Your task to perform on an android device: Search for pizza restaurants on Maps Image 0: 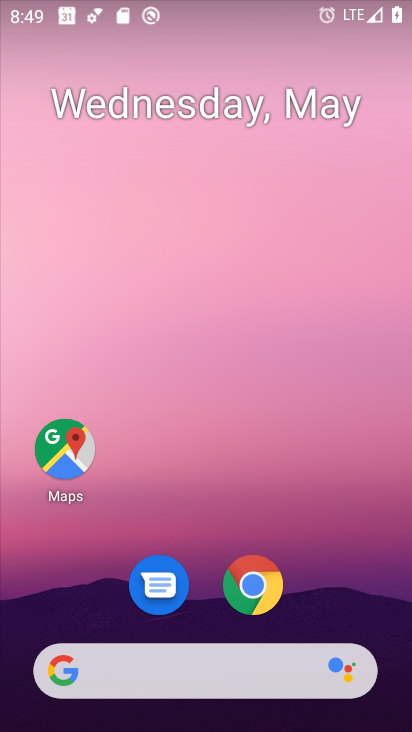
Step 0: click (66, 454)
Your task to perform on an android device: Search for pizza restaurants on Maps Image 1: 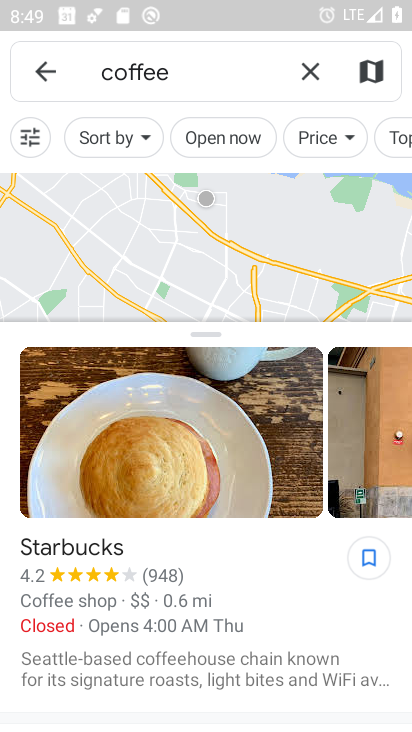
Step 1: click (307, 68)
Your task to perform on an android device: Search for pizza restaurants on Maps Image 2: 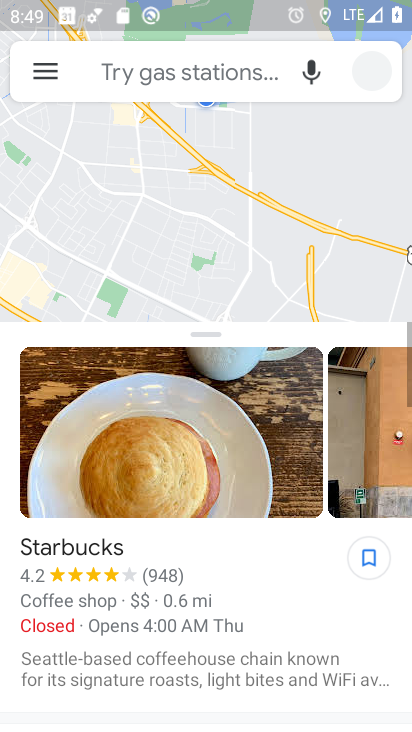
Step 2: click (198, 67)
Your task to perform on an android device: Search for pizza restaurants on Maps Image 3: 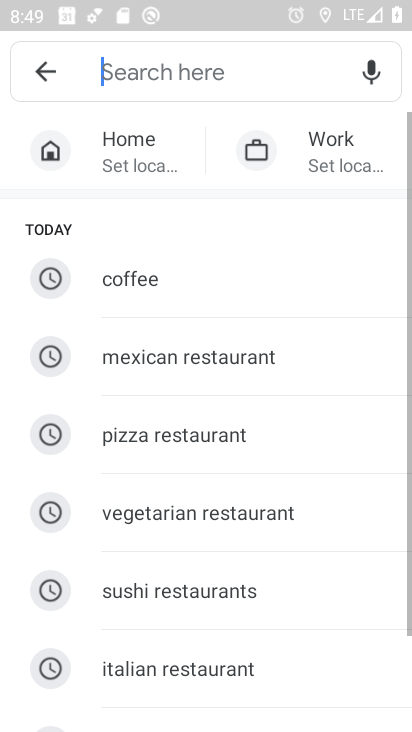
Step 3: click (198, 74)
Your task to perform on an android device: Search for pizza restaurants on Maps Image 4: 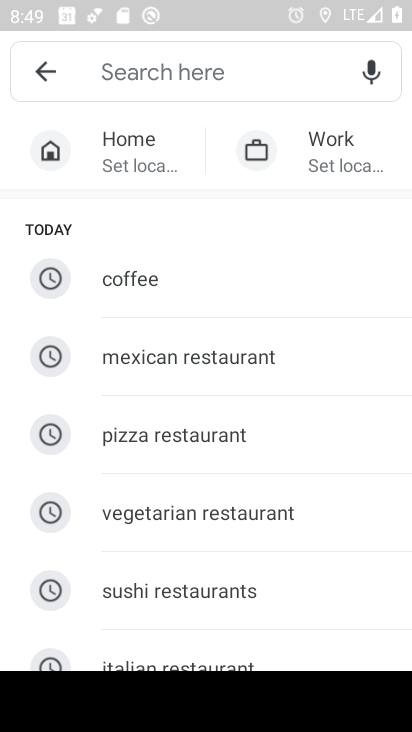
Step 4: click (228, 425)
Your task to perform on an android device: Search for pizza restaurants on Maps Image 5: 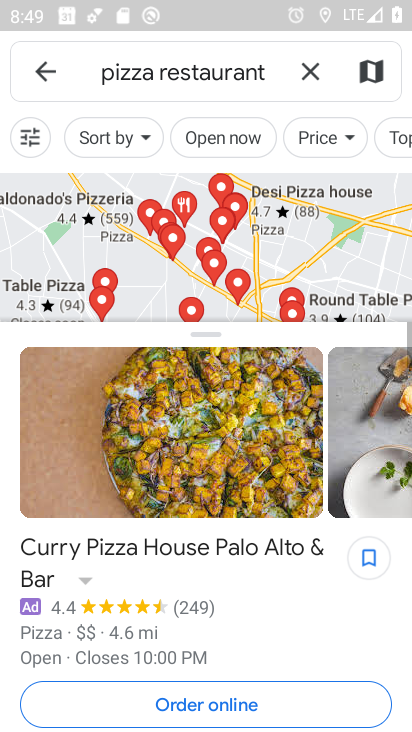
Step 5: task complete